Your task to perform on an android device: Open settings Image 0: 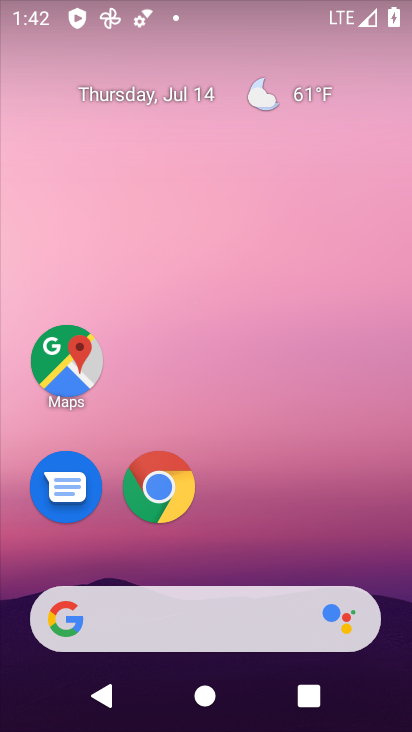
Step 0: drag from (374, 525) to (374, 114)
Your task to perform on an android device: Open settings Image 1: 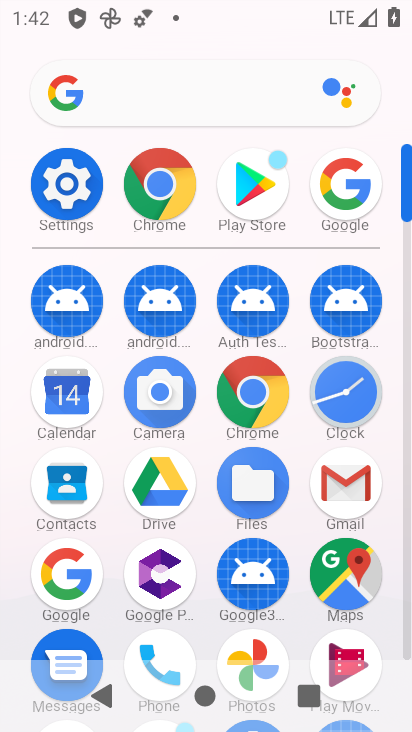
Step 1: click (79, 196)
Your task to perform on an android device: Open settings Image 2: 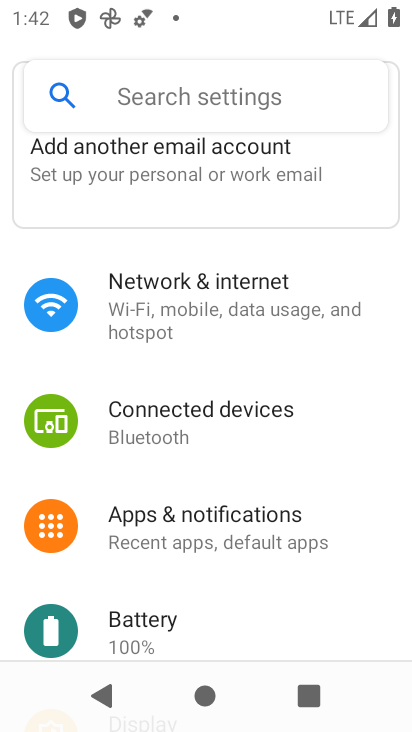
Step 2: task complete